Your task to perform on an android device: Open Google Maps Image 0: 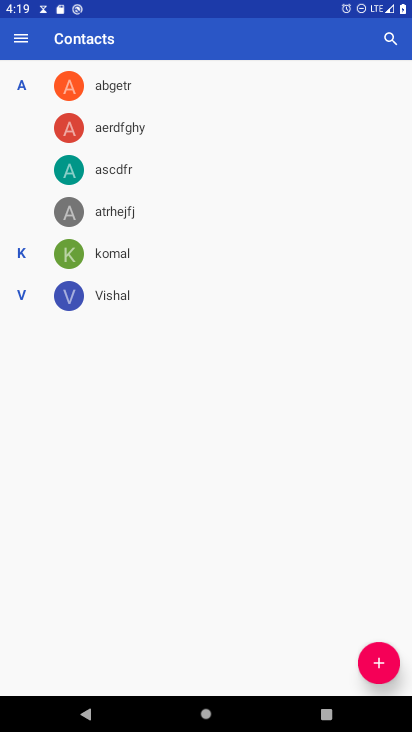
Step 0: press home button
Your task to perform on an android device: Open Google Maps Image 1: 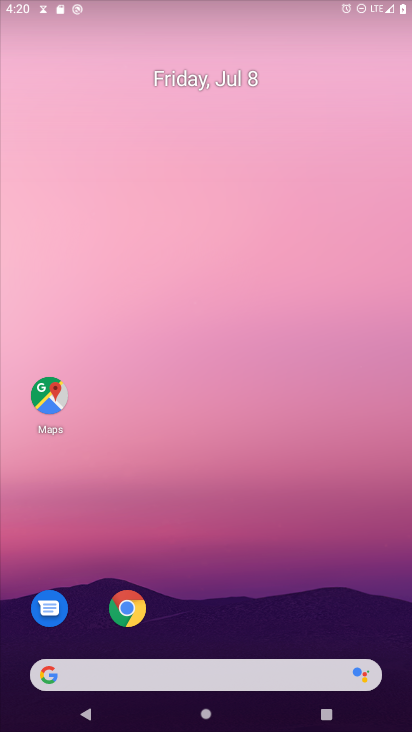
Step 1: drag from (178, 685) to (237, 67)
Your task to perform on an android device: Open Google Maps Image 2: 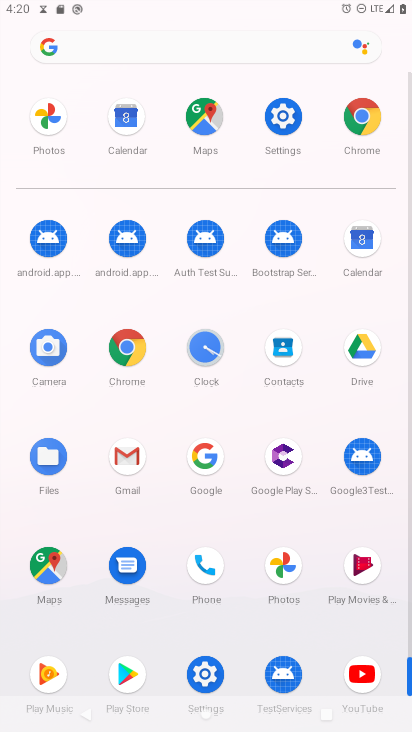
Step 2: click (67, 566)
Your task to perform on an android device: Open Google Maps Image 3: 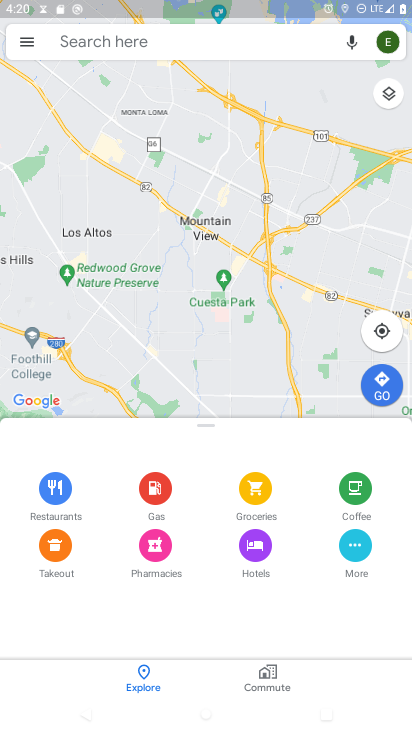
Step 3: task complete